Your task to perform on an android device: Search for seafood restaurants on Google Maps Image 0: 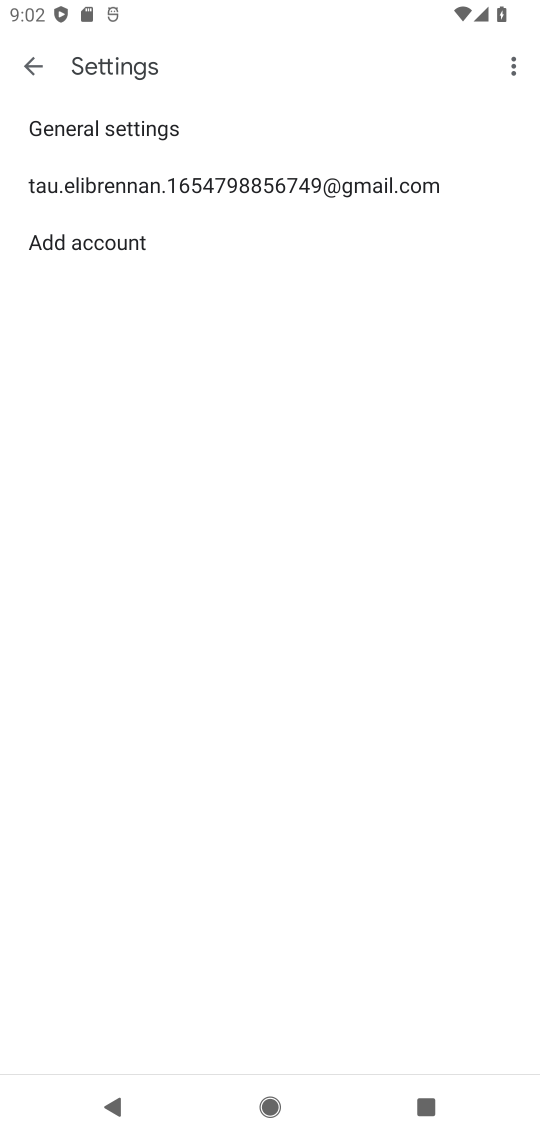
Step 0: press back button
Your task to perform on an android device: Search for seafood restaurants on Google Maps Image 1: 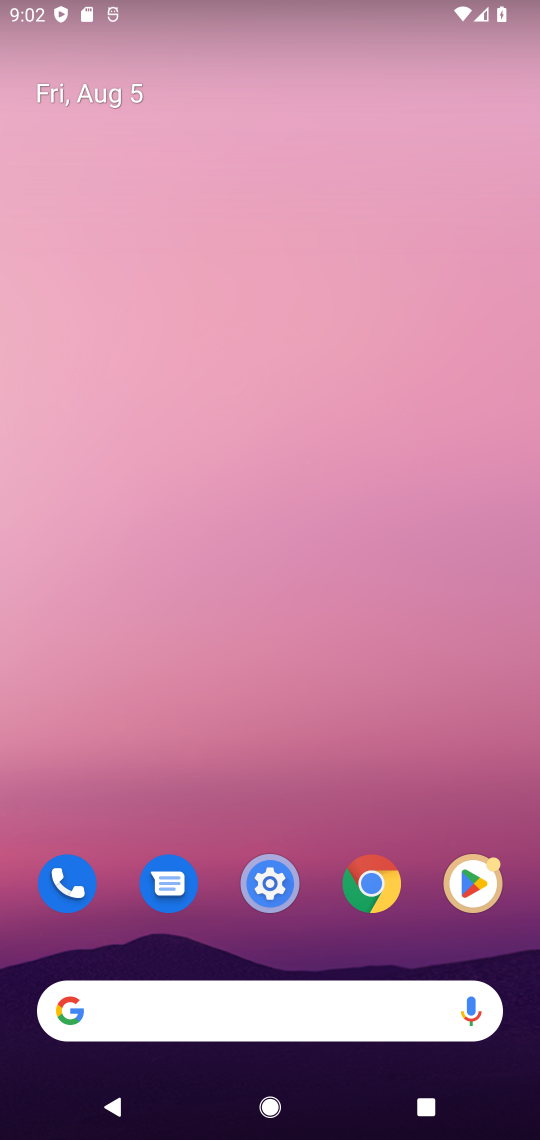
Step 1: drag from (277, 902) to (359, 98)
Your task to perform on an android device: Search for seafood restaurants on Google Maps Image 2: 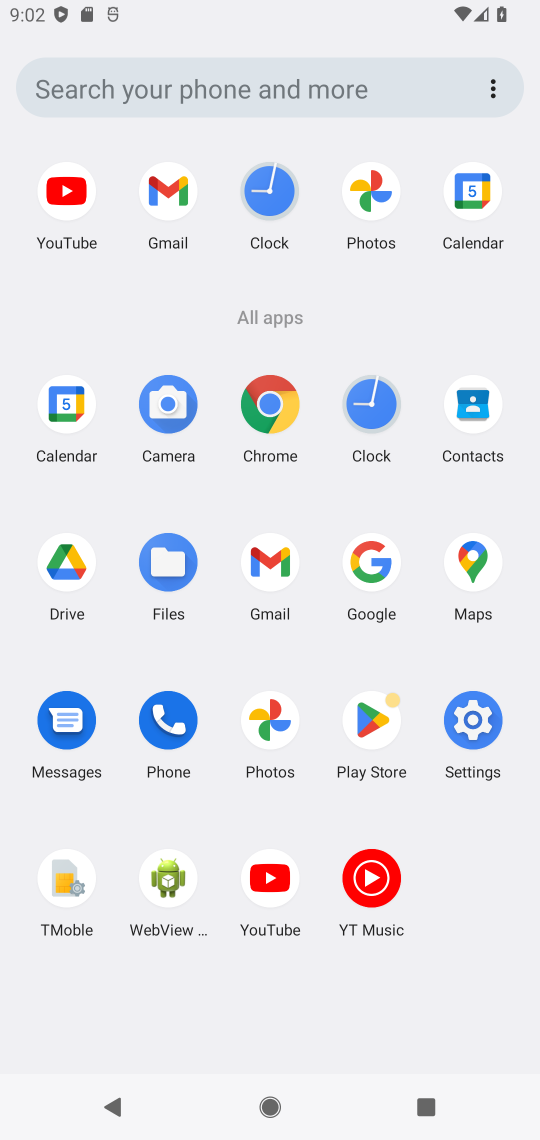
Step 2: click (460, 581)
Your task to perform on an android device: Search for seafood restaurants on Google Maps Image 3: 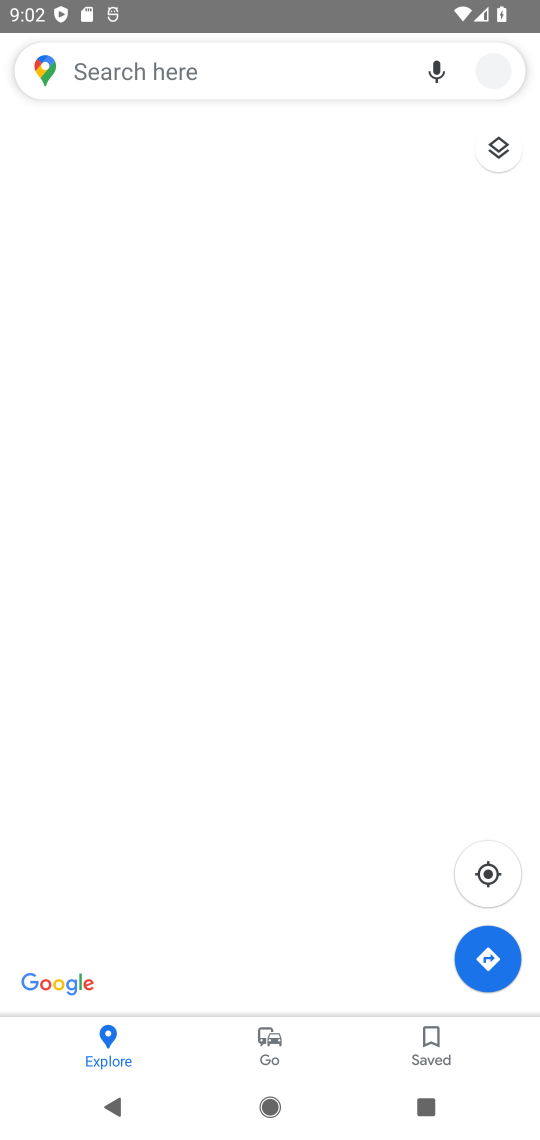
Step 3: click (183, 67)
Your task to perform on an android device: Search for seafood restaurants on Google Maps Image 4: 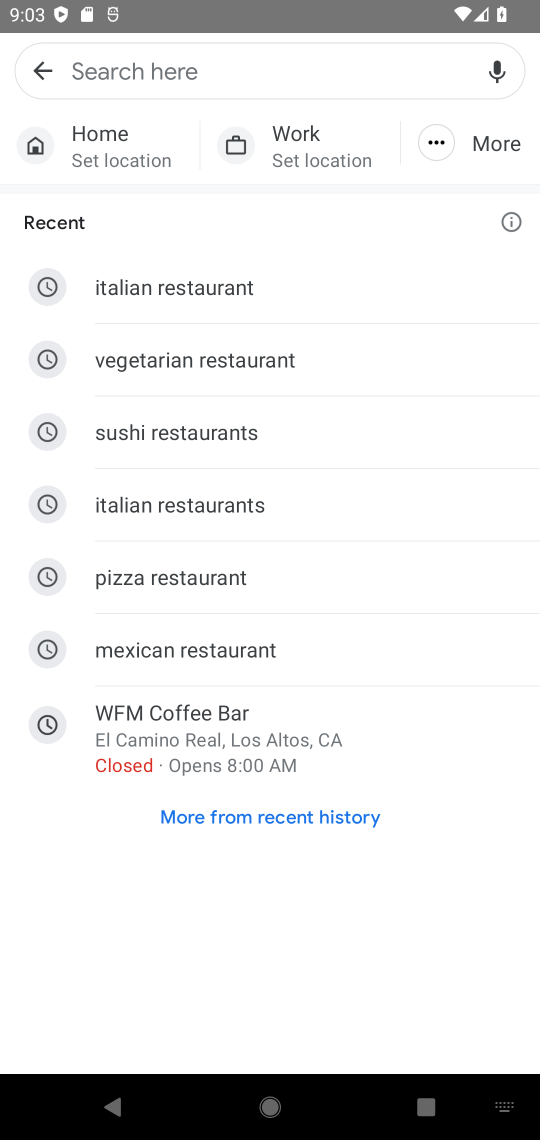
Step 4: type "seafood restaurants"
Your task to perform on an android device: Search for seafood restaurants on Google Maps Image 5: 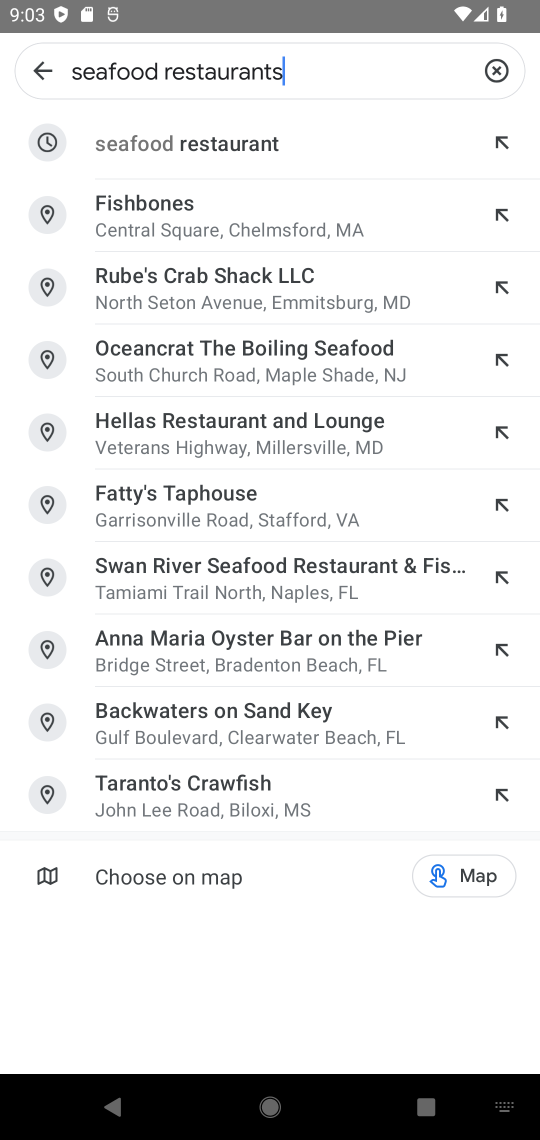
Step 5: click (222, 150)
Your task to perform on an android device: Search for seafood restaurants on Google Maps Image 6: 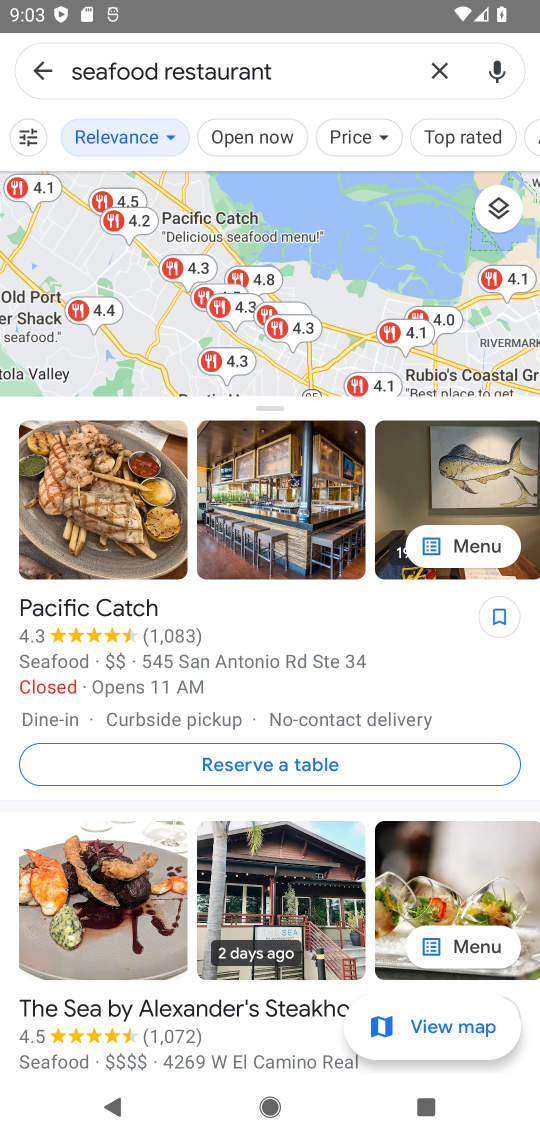
Step 6: task complete